Your task to perform on an android device: allow cookies in the chrome app Image 0: 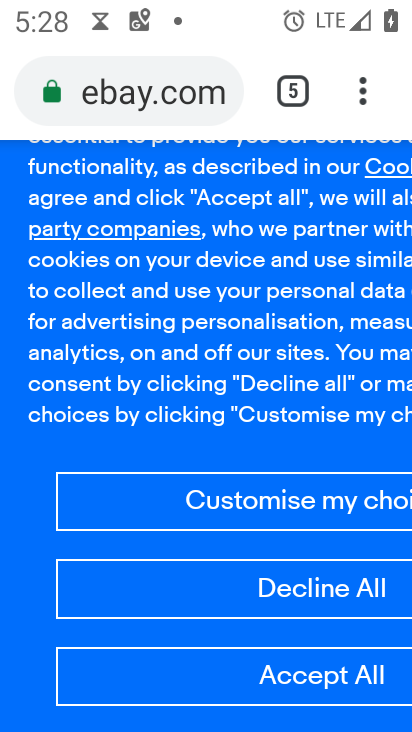
Step 0: click (358, 86)
Your task to perform on an android device: allow cookies in the chrome app Image 1: 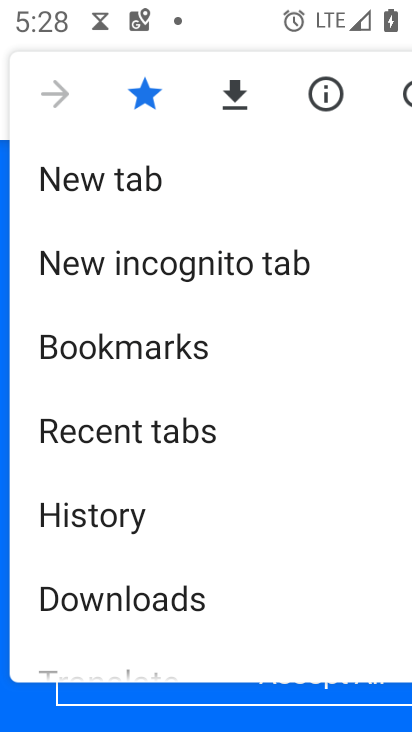
Step 1: drag from (255, 550) to (219, 114)
Your task to perform on an android device: allow cookies in the chrome app Image 2: 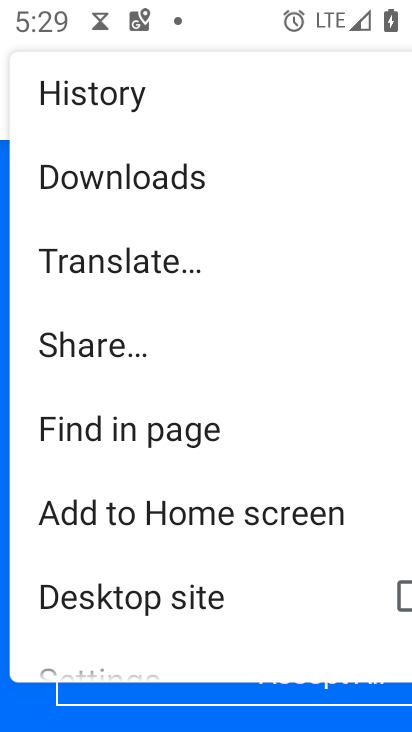
Step 2: drag from (225, 596) to (230, 201)
Your task to perform on an android device: allow cookies in the chrome app Image 3: 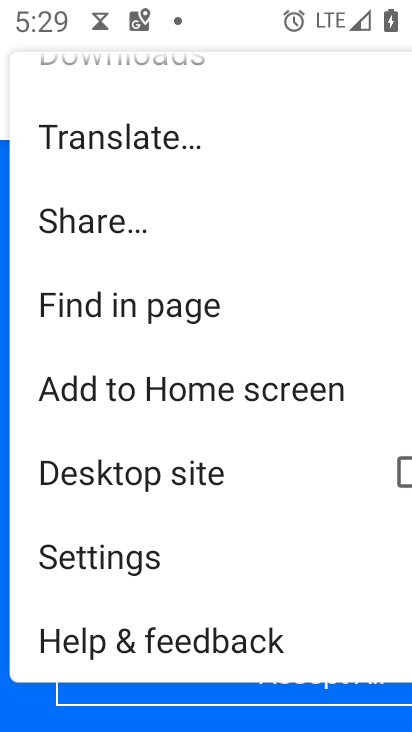
Step 3: click (176, 531)
Your task to perform on an android device: allow cookies in the chrome app Image 4: 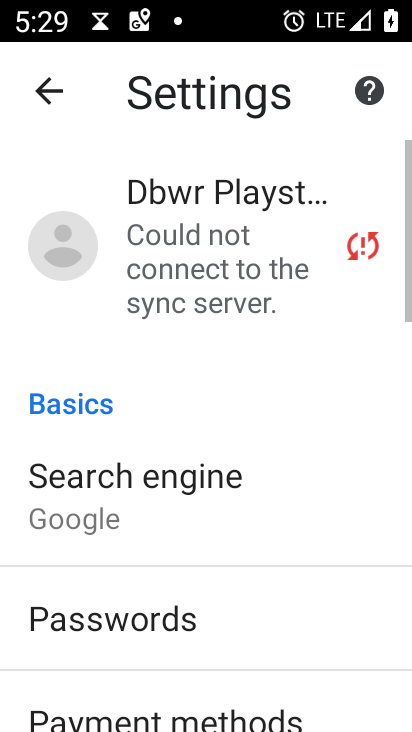
Step 4: drag from (197, 642) to (181, 105)
Your task to perform on an android device: allow cookies in the chrome app Image 5: 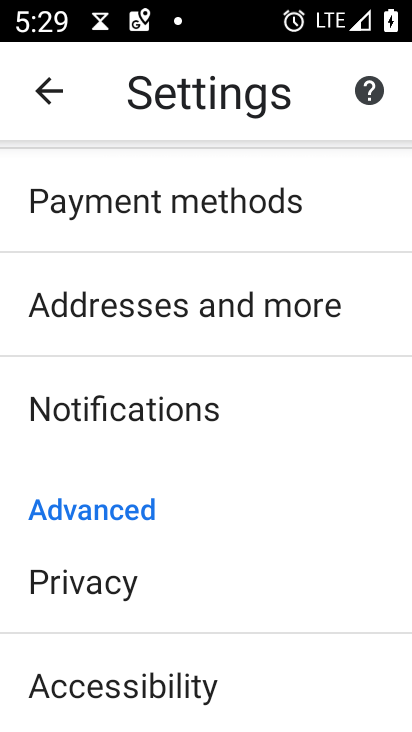
Step 5: drag from (244, 647) to (214, 201)
Your task to perform on an android device: allow cookies in the chrome app Image 6: 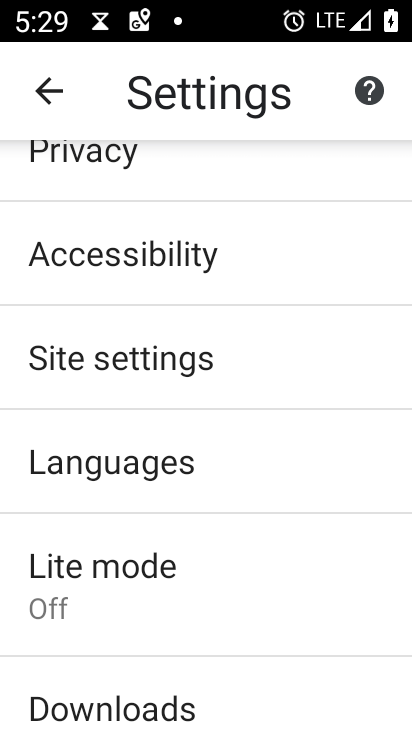
Step 6: click (154, 322)
Your task to perform on an android device: allow cookies in the chrome app Image 7: 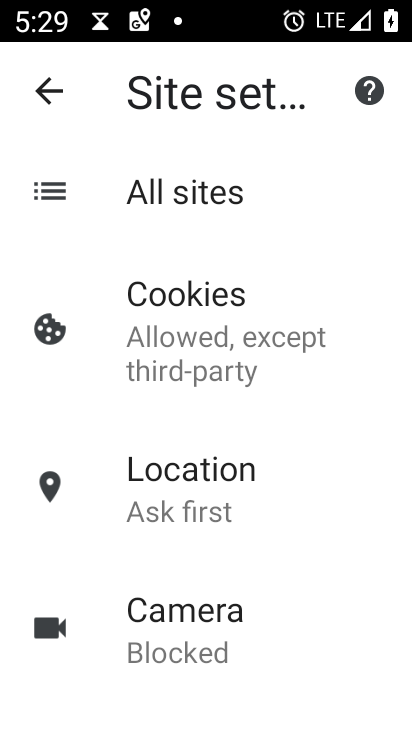
Step 7: click (201, 310)
Your task to perform on an android device: allow cookies in the chrome app Image 8: 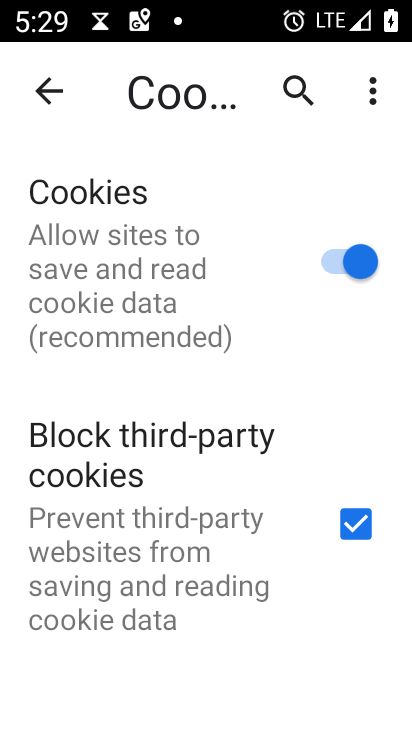
Step 8: task complete